Your task to perform on an android device: Open Chrome and go to the settings page Image 0: 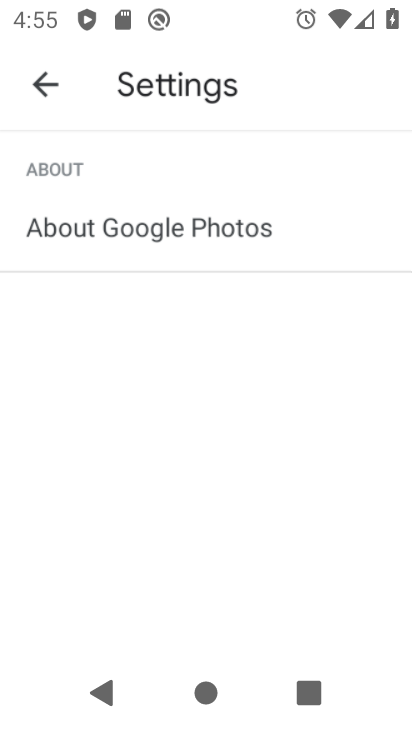
Step 0: drag from (352, 499) to (395, 170)
Your task to perform on an android device: Open Chrome and go to the settings page Image 1: 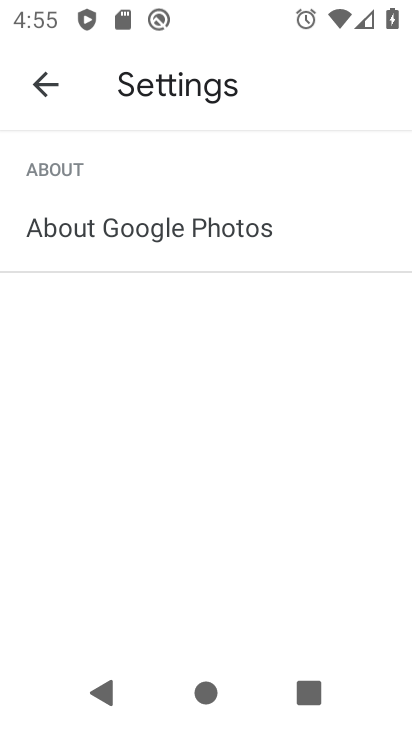
Step 1: press home button
Your task to perform on an android device: Open Chrome and go to the settings page Image 2: 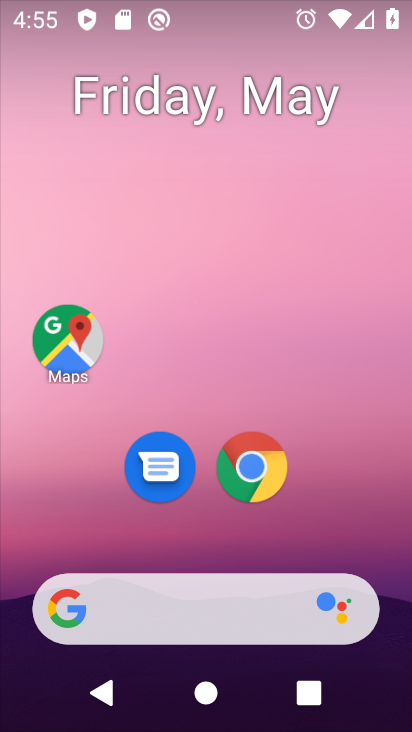
Step 2: click (279, 482)
Your task to perform on an android device: Open Chrome and go to the settings page Image 3: 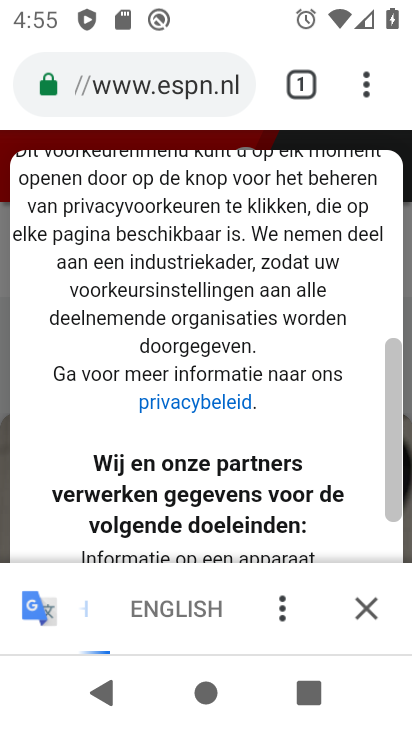
Step 3: task complete